Your task to perform on an android device: change the clock style Image 0: 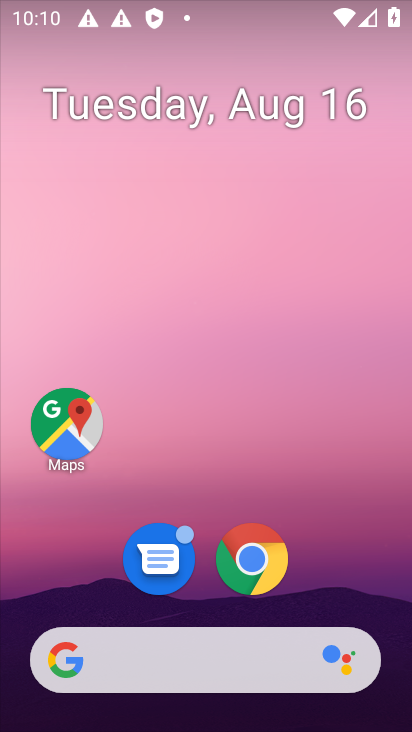
Step 0: drag from (187, 288) to (187, 220)
Your task to perform on an android device: change the clock style Image 1: 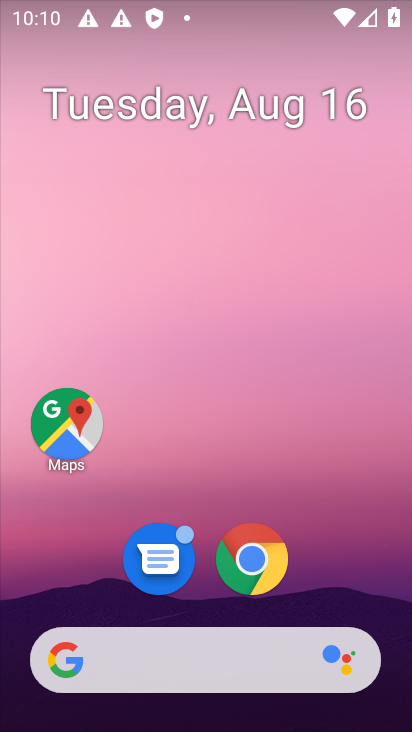
Step 1: drag from (208, 425) to (236, 85)
Your task to perform on an android device: change the clock style Image 2: 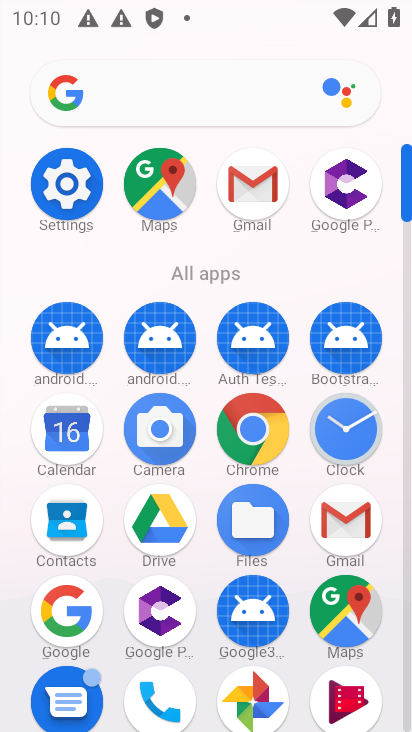
Step 2: click (339, 430)
Your task to perform on an android device: change the clock style Image 3: 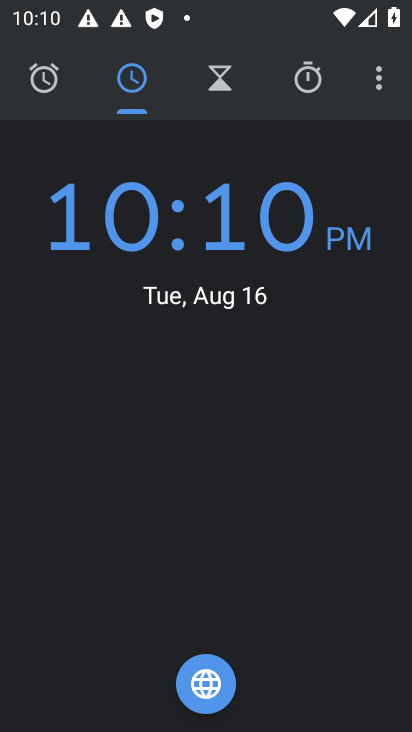
Step 3: click (378, 76)
Your task to perform on an android device: change the clock style Image 4: 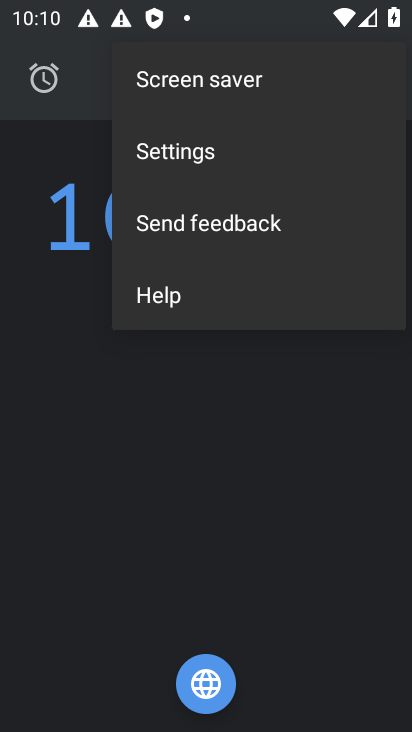
Step 4: click (205, 153)
Your task to perform on an android device: change the clock style Image 5: 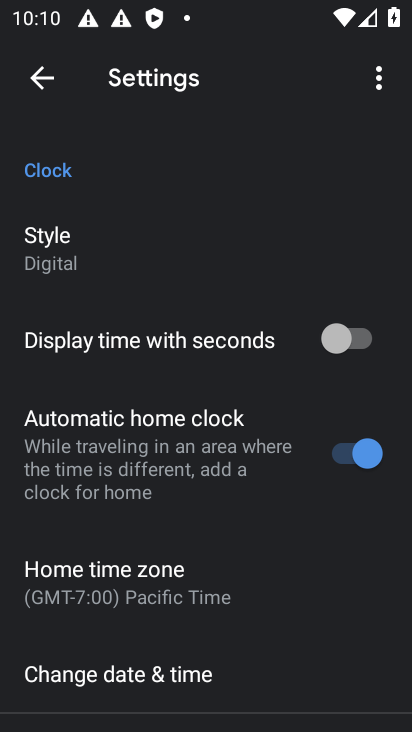
Step 5: click (69, 247)
Your task to perform on an android device: change the clock style Image 6: 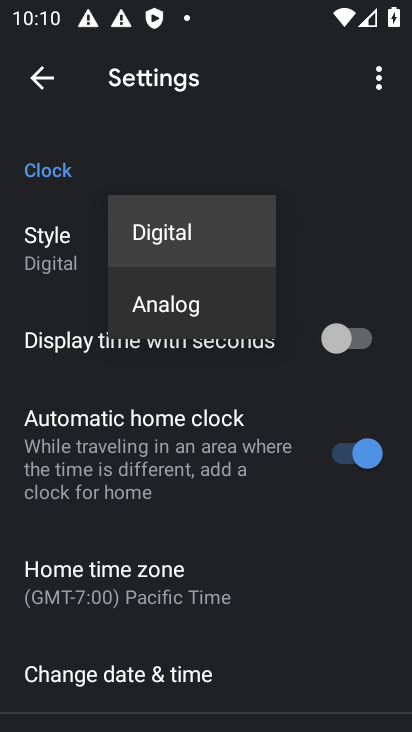
Step 6: click (144, 294)
Your task to perform on an android device: change the clock style Image 7: 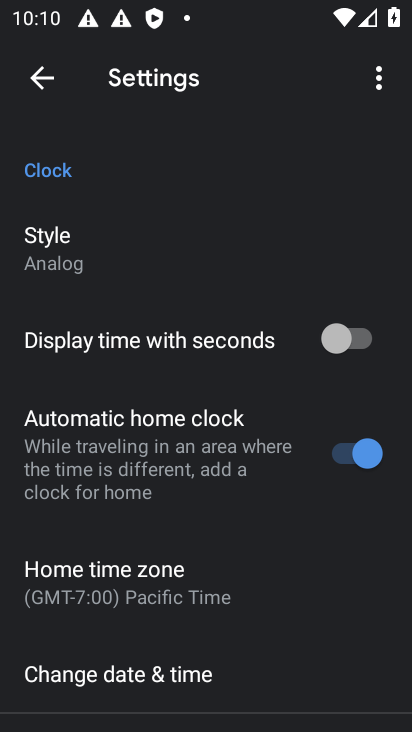
Step 7: task complete